Your task to perform on an android device: Open settings on Google Maps Image 0: 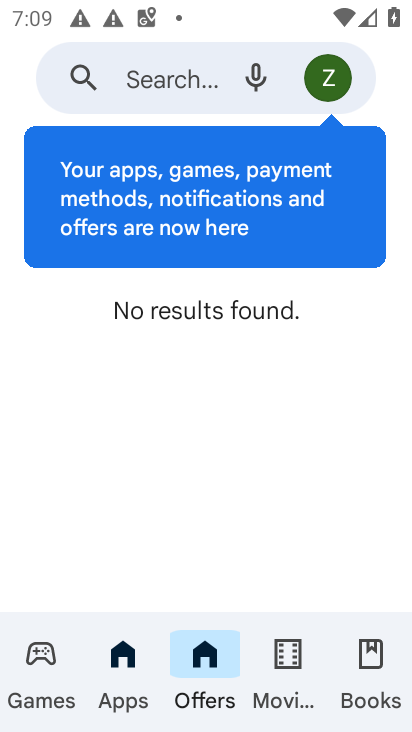
Step 0: press home button
Your task to perform on an android device: Open settings on Google Maps Image 1: 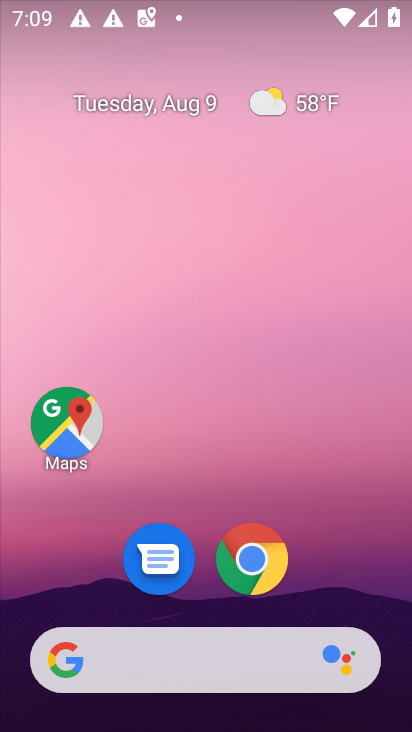
Step 1: click (61, 417)
Your task to perform on an android device: Open settings on Google Maps Image 2: 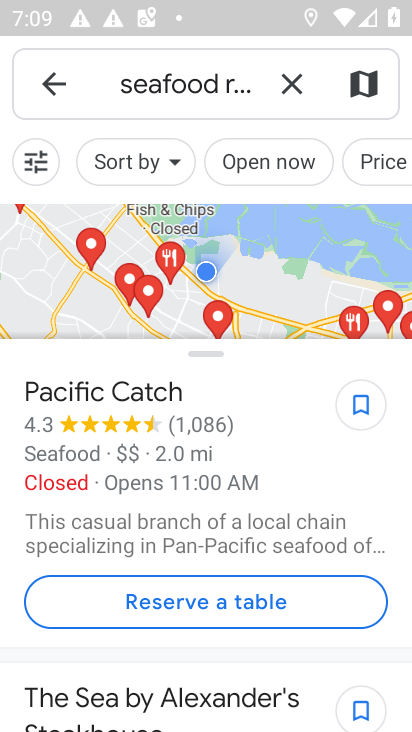
Step 2: click (59, 83)
Your task to perform on an android device: Open settings on Google Maps Image 3: 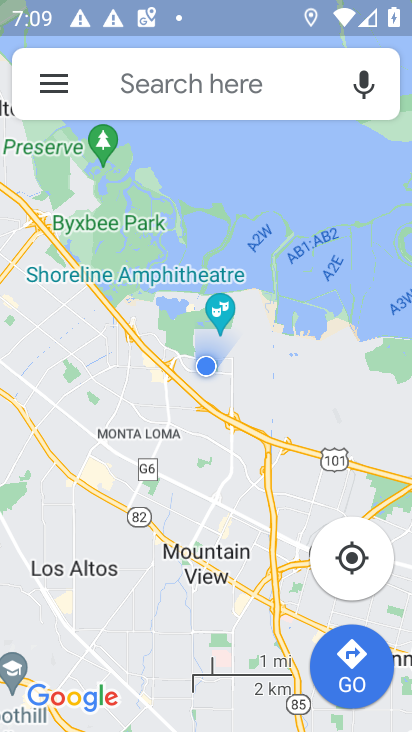
Step 3: click (50, 81)
Your task to perform on an android device: Open settings on Google Maps Image 4: 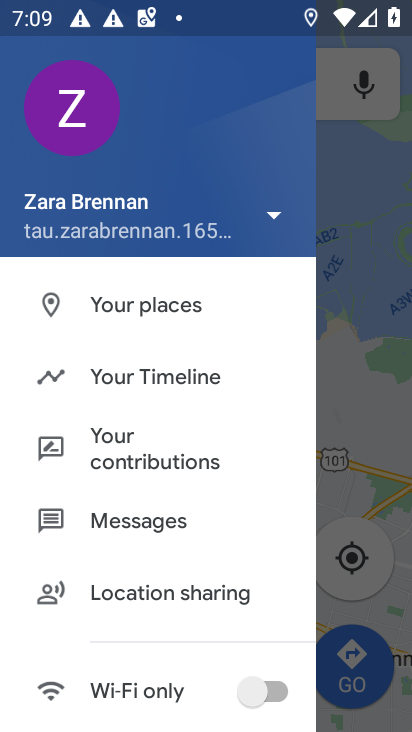
Step 4: drag from (133, 517) to (138, 268)
Your task to perform on an android device: Open settings on Google Maps Image 5: 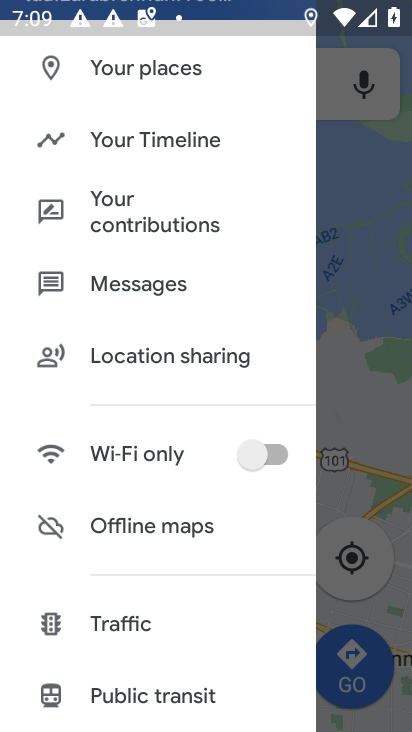
Step 5: drag from (124, 432) to (126, 311)
Your task to perform on an android device: Open settings on Google Maps Image 6: 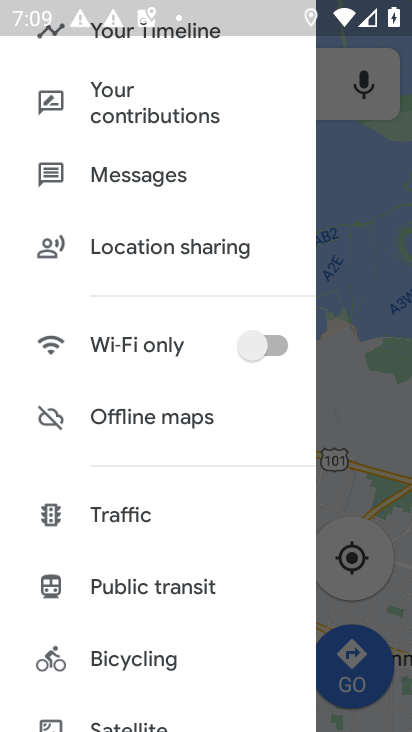
Step 6: drag from (136, 364) to (138, 253)
Your task to perform on an android device: Open settings on Google Maps Image 7: 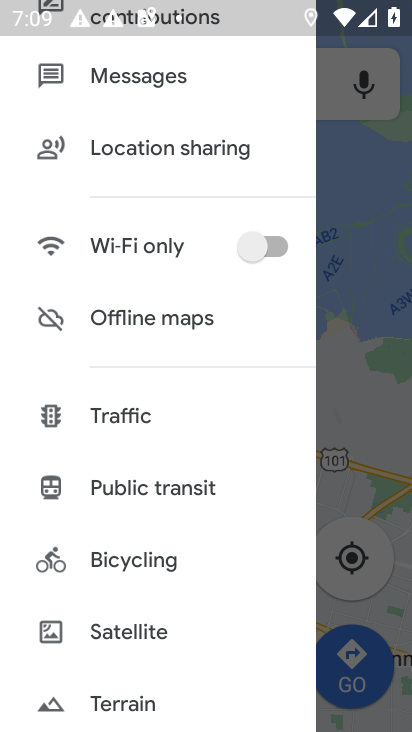
Step 7: drag from (130, 640) to (138, 284)
Your task to perform on an android device: Open settings on Google Maps Image 8: 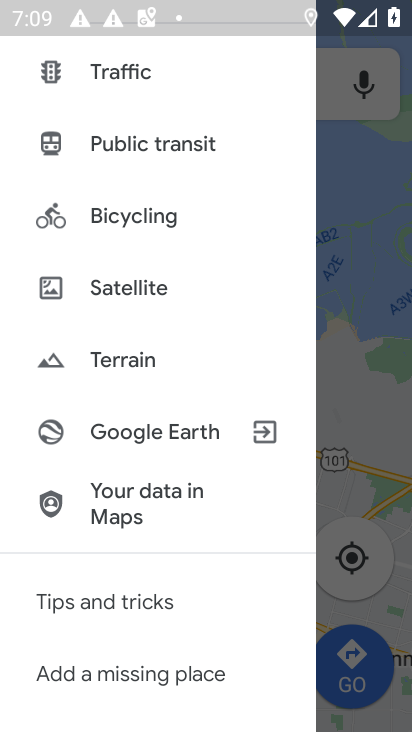
Step 8: drag from (126, 585) to (134, 260)
Your task to perform on an android device: Open settings on Google Maps Image 9: 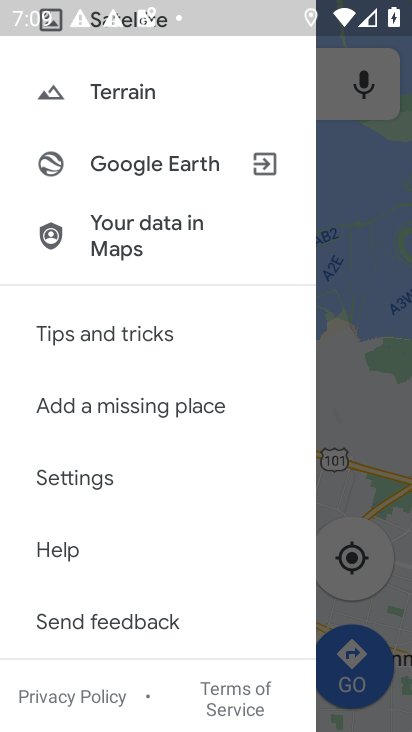
Step 9: click (96, 479)
Your task to perform on an android device: Open settings on Google Maps Image 10: 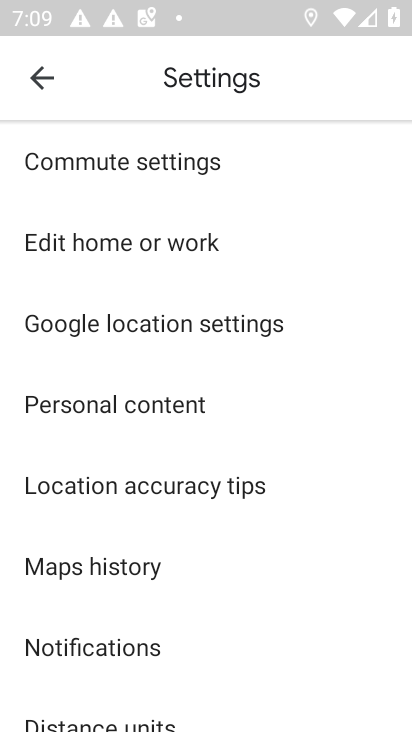
Step 10: task complete